Your task to perform on an android device: all mails in gmail Image 0: 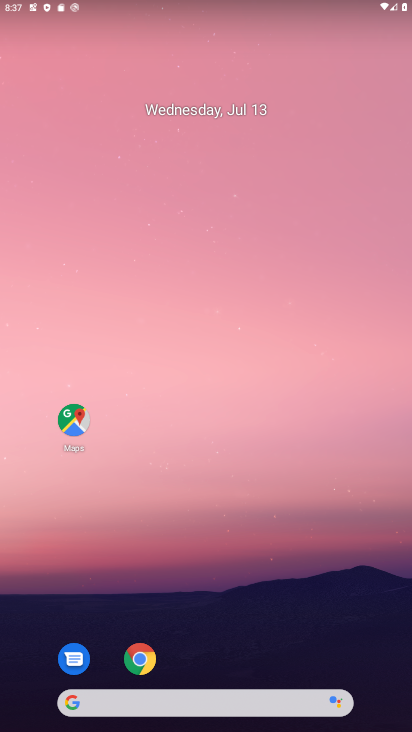
Step 0: drag from (210, 651) to (212, 158)
Your task to perform on an android device: all mails in gmail Image 1: 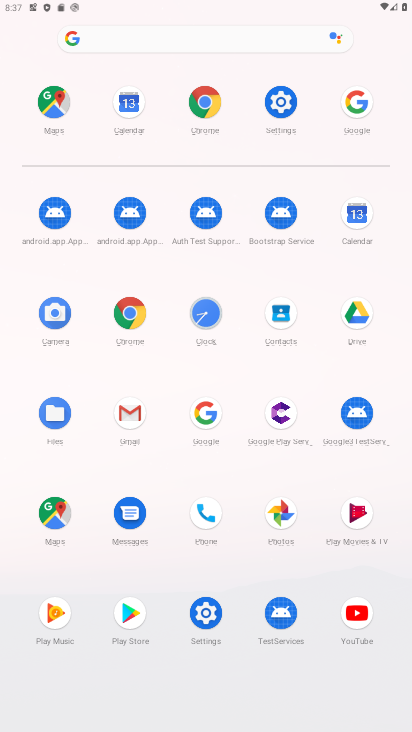
Step 1: click (129, 417)
Your task to perform on an android device: all mails in gmail Image 2: 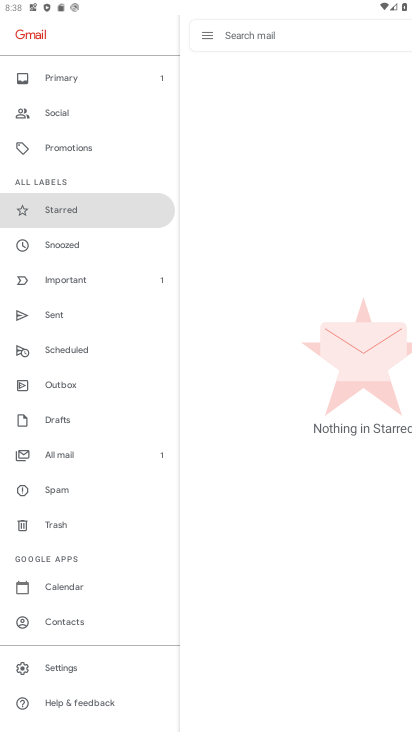
Step 2: click (83, 457)
Your task to perform on an android device: all mails in gmail Image 3: 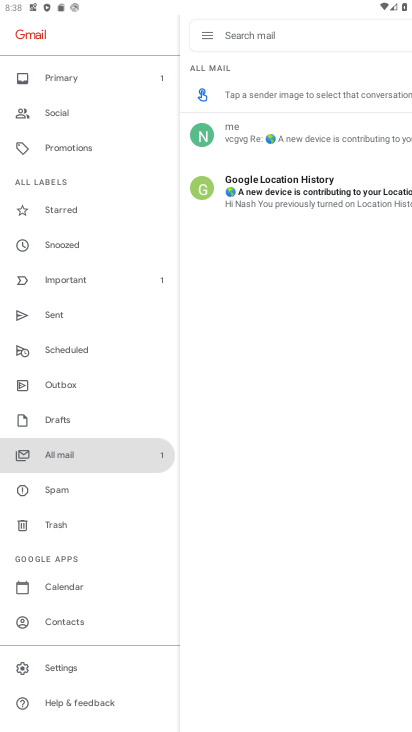
Step 3: task complete